Your task to perform on an android device: Go to network settings Image 0: 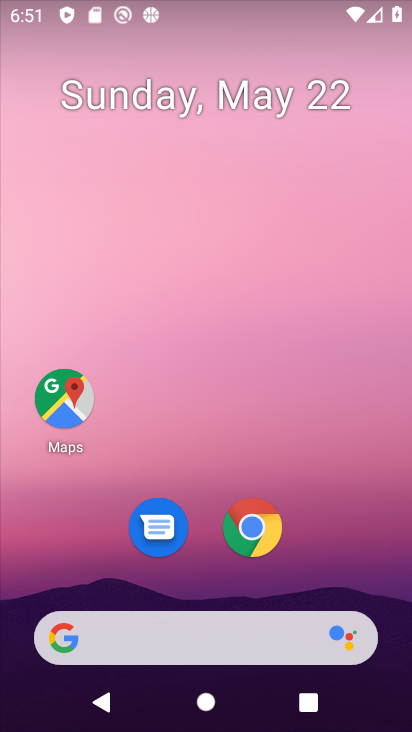
Step 0: drag from (0, 0) to (159, 645)
Your task to perform on an android device: Go to network settings Image 1: 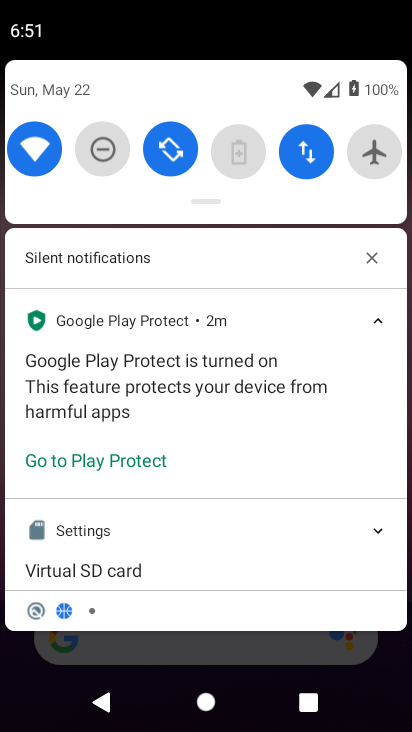
Step 1: press back button
Your task to perform on an android device: Go to network settings Image 2: 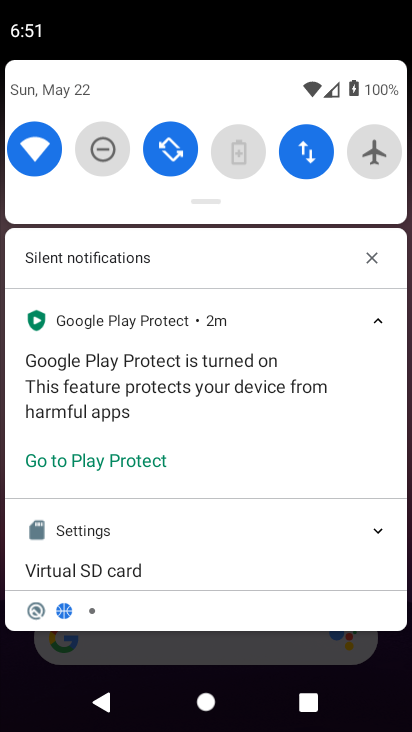
Step 2: click (159, 645)
Your task to perform on an android device: Go to network settings Image 3: 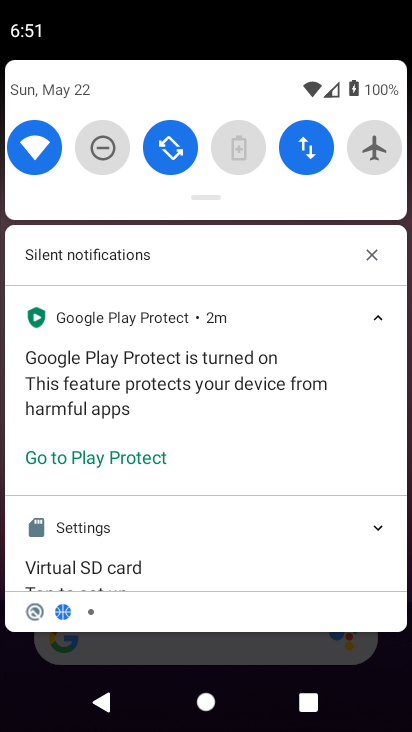
Step 3: press back button
Your task to perform on an android device: Go to network settings Image 4: 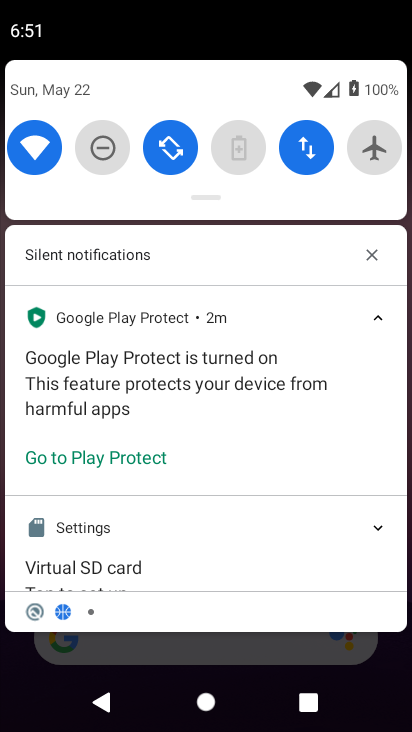
Step 4: drag from (159, 645) to (395, 365)
Your task to perform on an android device: Go to network settings Image 5: 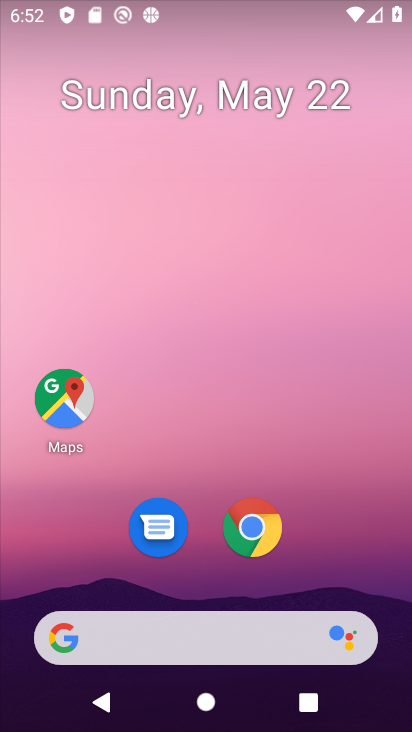
Step 5: drag from (335, 468) to (286, 12)
Your task to perform on an android device: Go to network settings Image 6: 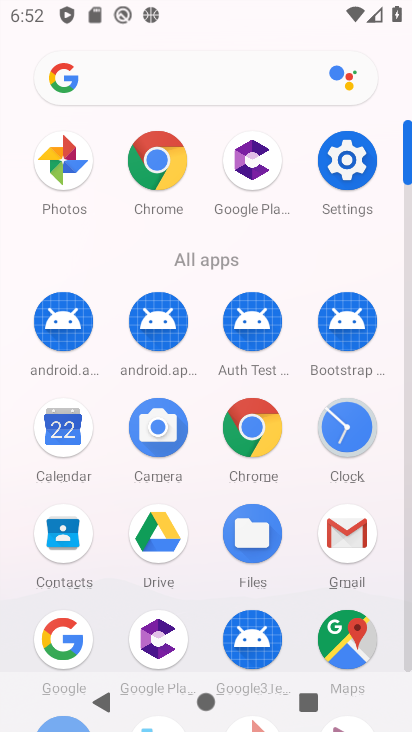
Step 6: click (320, 156)
Your task to perform on an android device: Go to network settings Image 7: 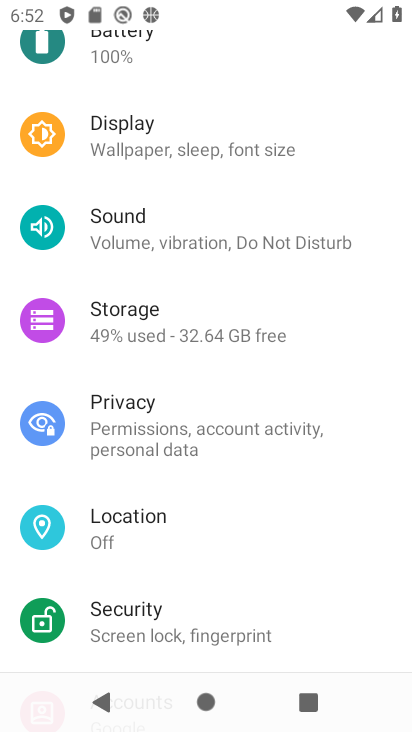
Step 7: drag from (239, 563) to (300, 172)
Your task to perform on an android device: Go to network settings Image 8: 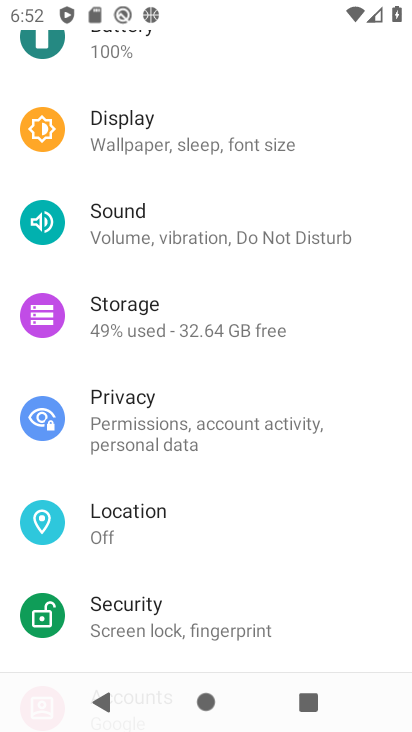
Step 8: drag from (319, 408) to (377, 642)
Your task to perform on an android device: Go to network settings Image 9: 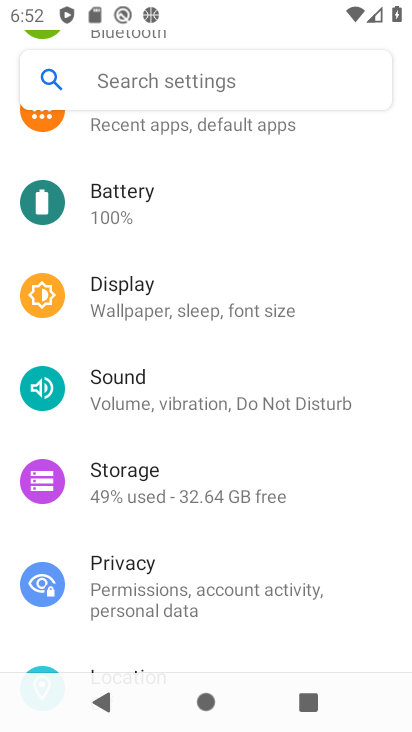
Step 9: drag from (287, 304) to (393, 690)
Your task to perform on an android device: Go to network settings Image 10: 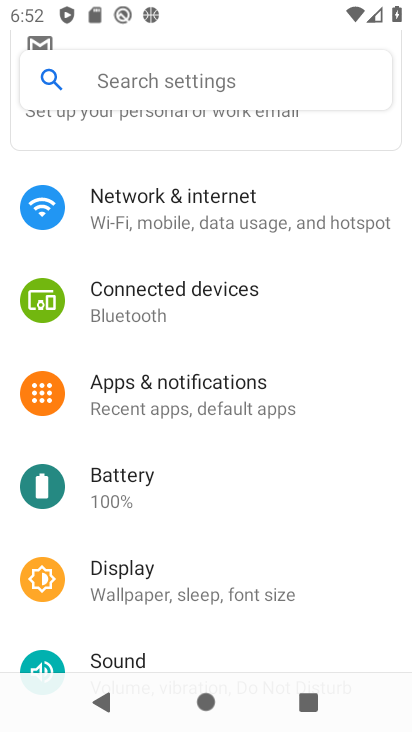
Step 10: drag from (231, 208) to (256, 601)
Your task to perform on an android device: Go to network settings Image 11: 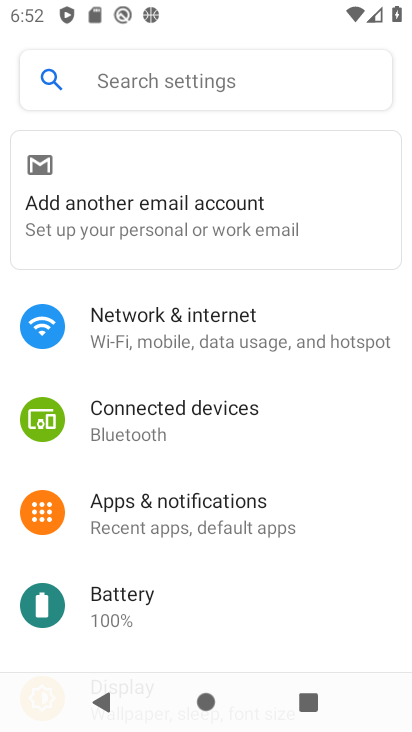
Step 11: click (205, 318)
Your task to perform on an android device: Go to network settings Image 12: 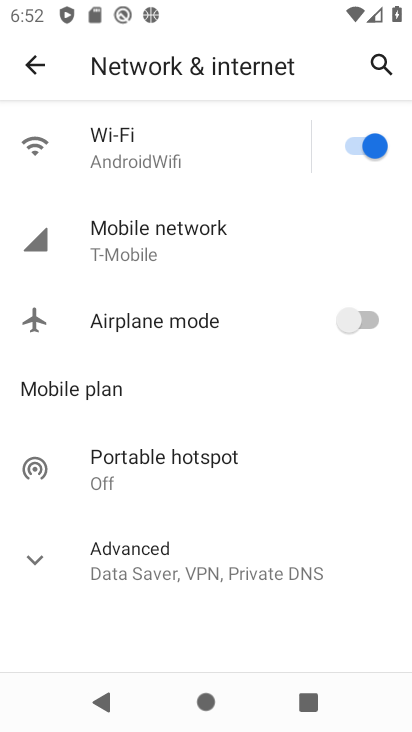
Step 12: task complete